Your task to perform on an android device: install app "Pandora - Music & Podcasts" Image 0: 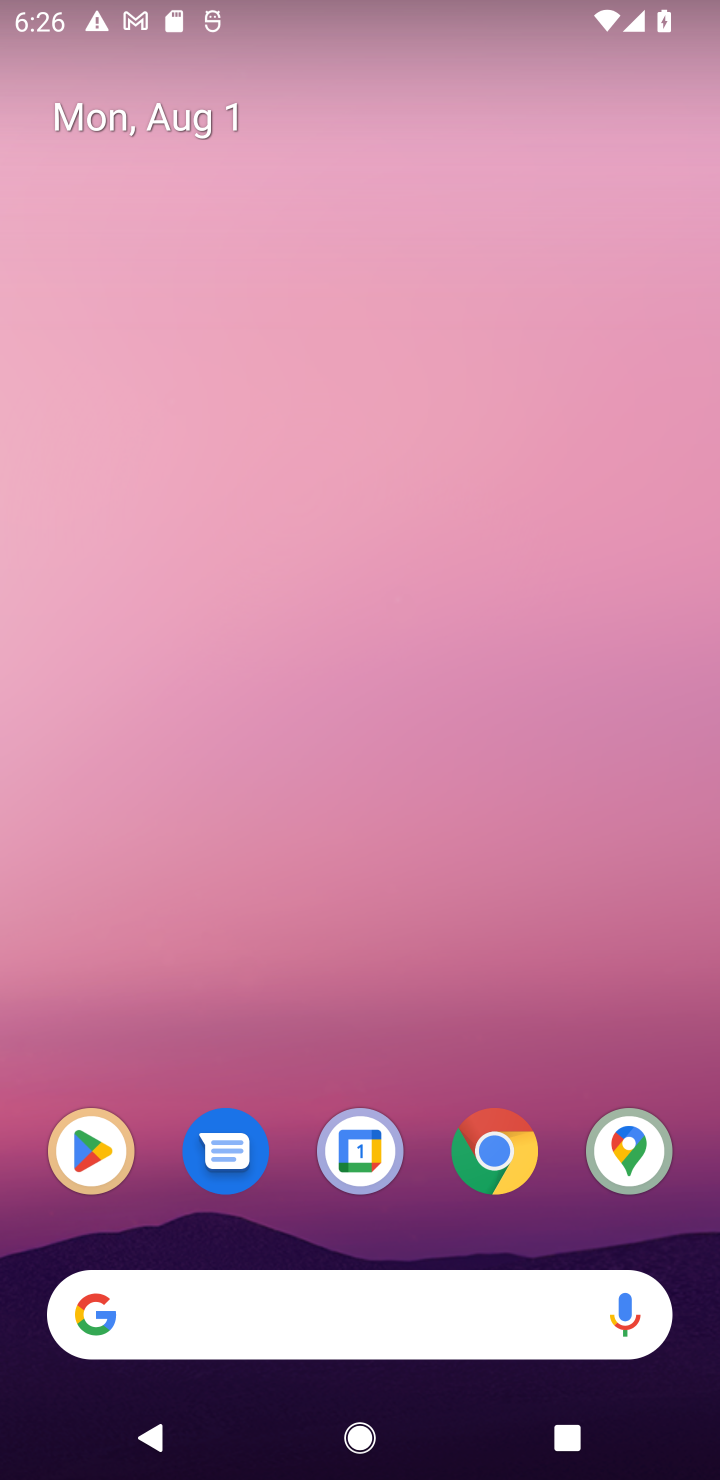
Step 0: drag from (261, 1258) to (400, 6)
Your task to perform on an android device: install app "Pandora - Music & Podcasts" Image 1: 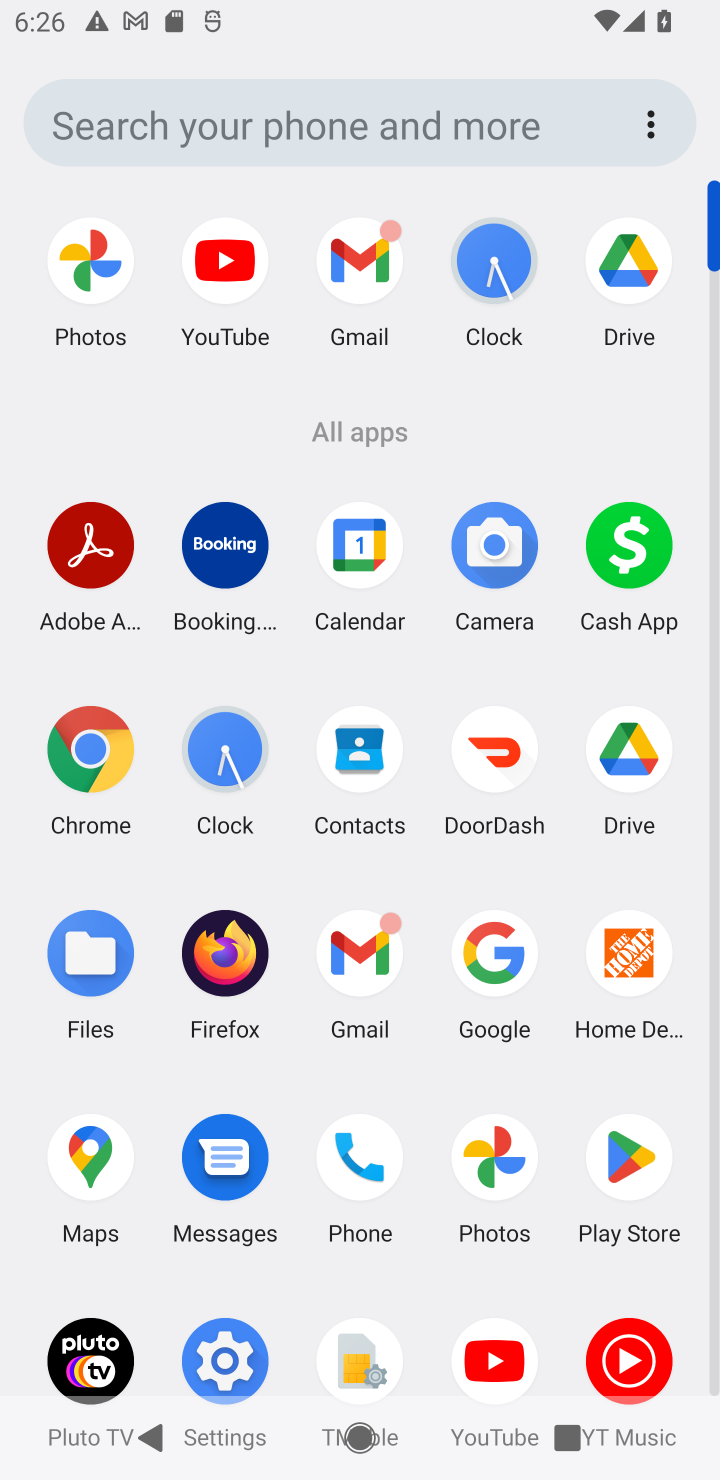
Step 1: click (636, 1163)
Your task to perform on an android device: install app "Pandora - Music & Podcasts" Image 2: 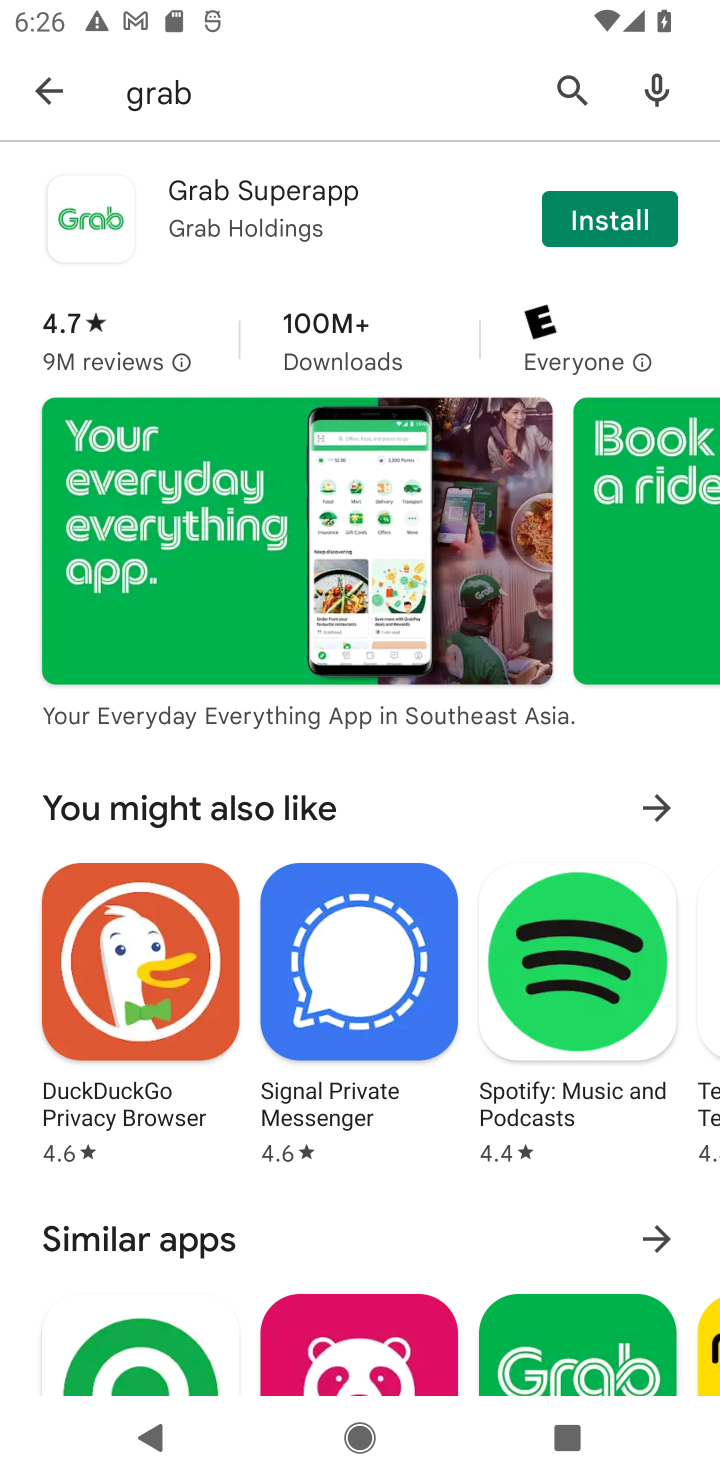
Step 2: click (583, 95)
Your task to perform on an android device: install app "Pandora - Music & Podcasts" Image 3: 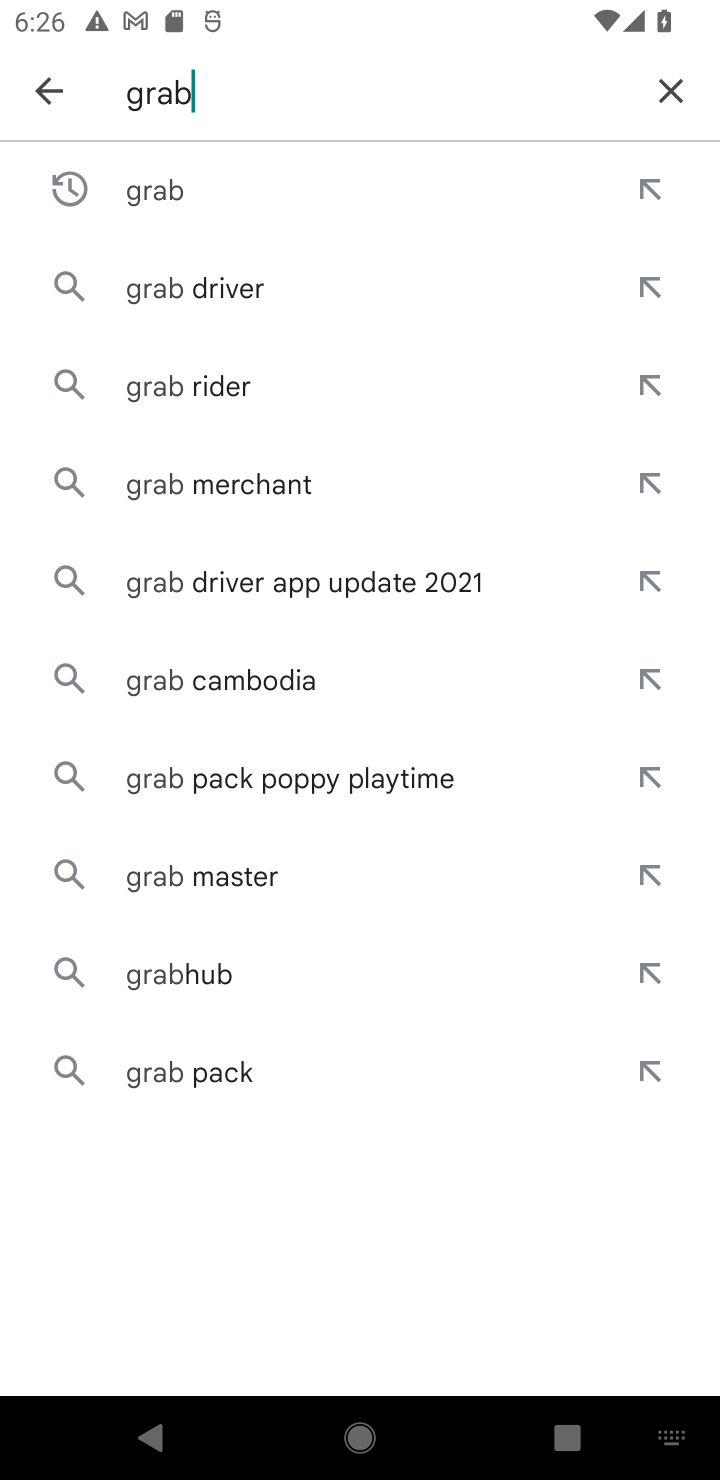
Step 3: click (681, 79)
Your task to perform on an android device: install app "Pandora - Music & Podcasts" Image 4: 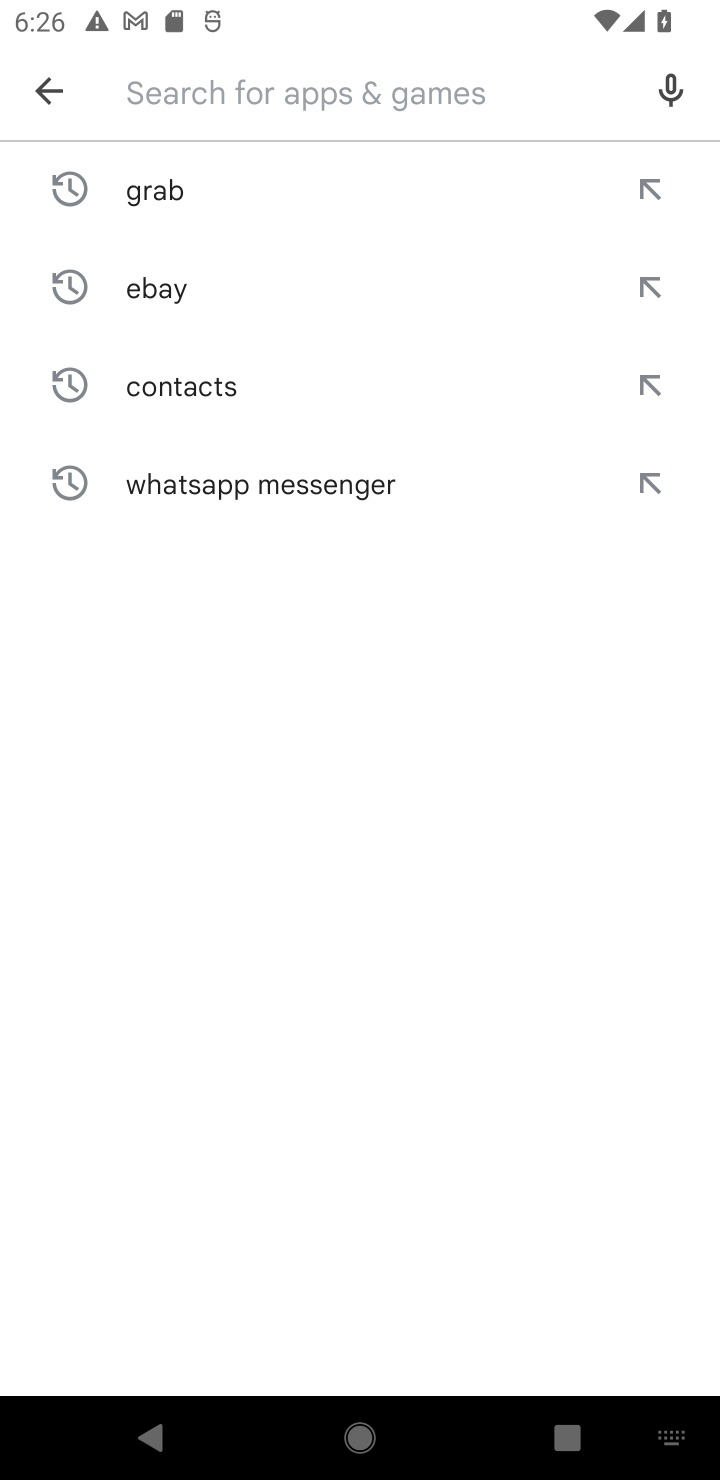
Step 4: type "pandora"
Your task to perform on an android device: install app "Pandora - Music & Podcasts" Image 5: 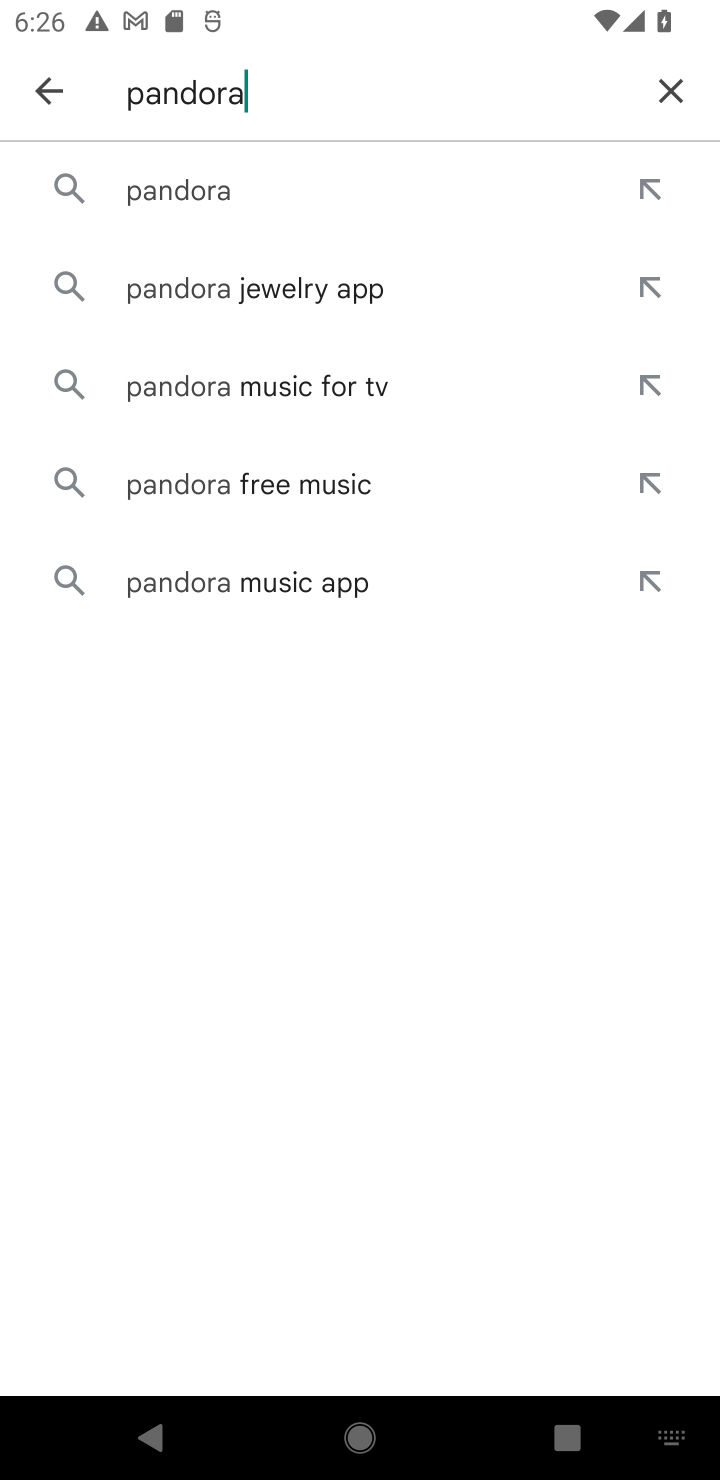
Step 5: click (410, 173)
Your task to perform on an android device: install app "Pandora - Music & Podcasts" Image 6: 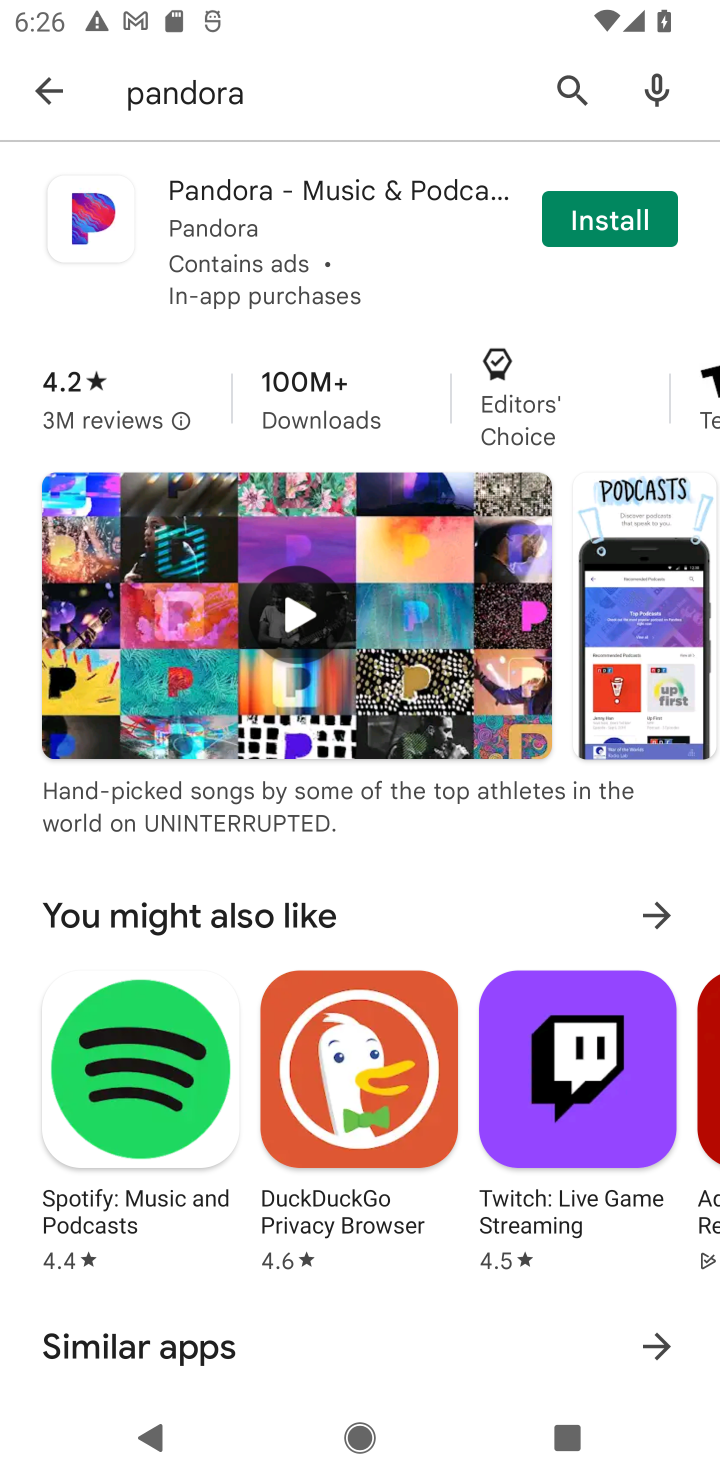
Step 6: click (644, 211)
Your task to perform on an android device: install app "Pandora - Music & Podcasts" Image 7: 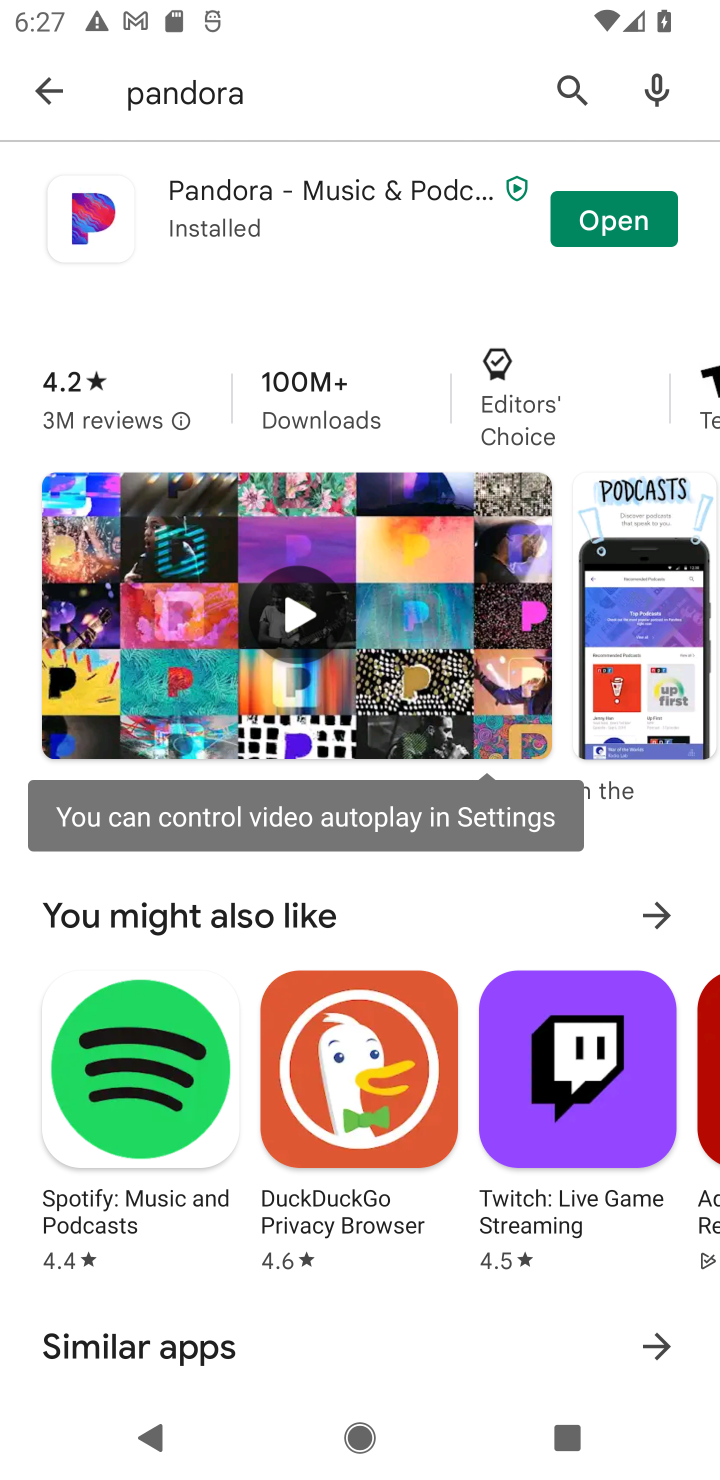
Step 7: task complete